Your task to perform on an android device: turn notification dots off Image 0: 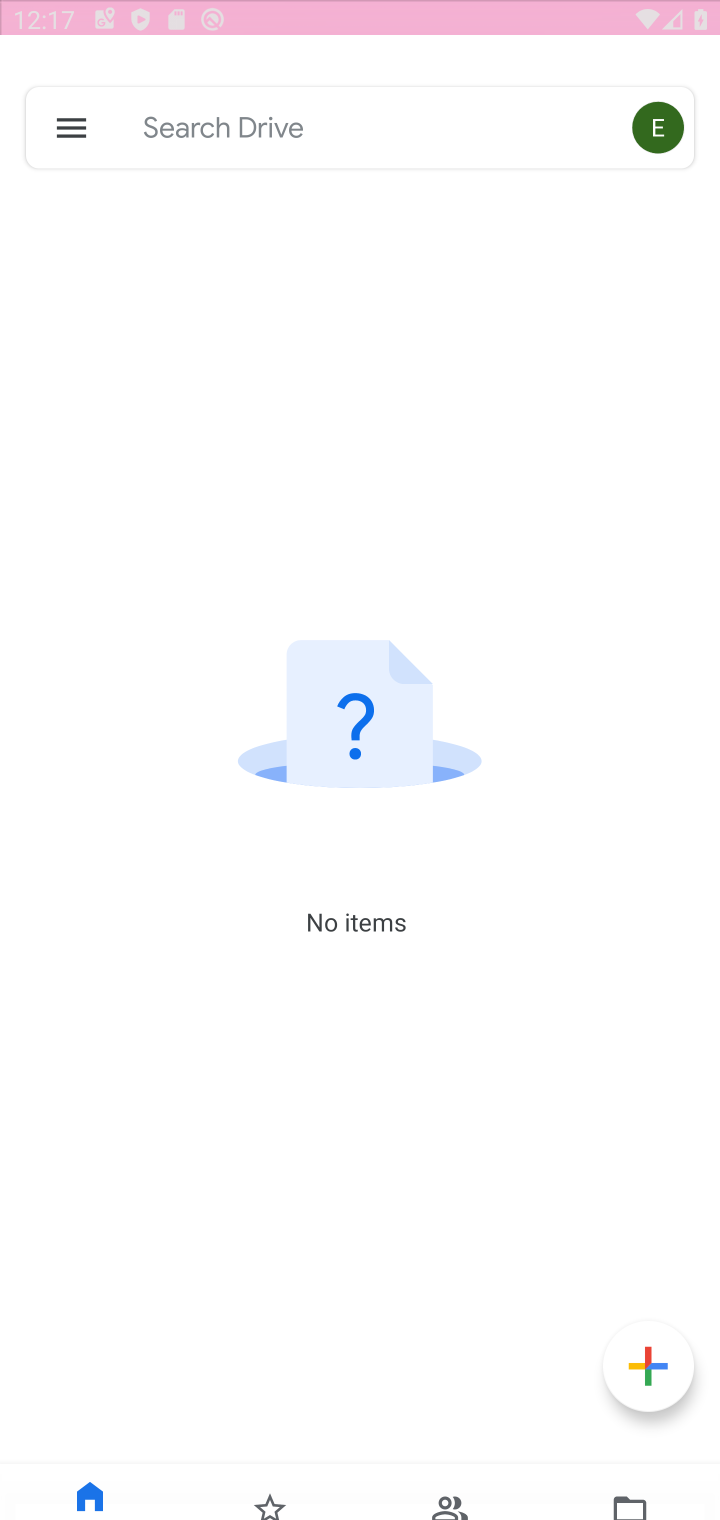
Step 0: click (112, 1039)
Your task to perform on an android device: turn notification dots off Image 1: 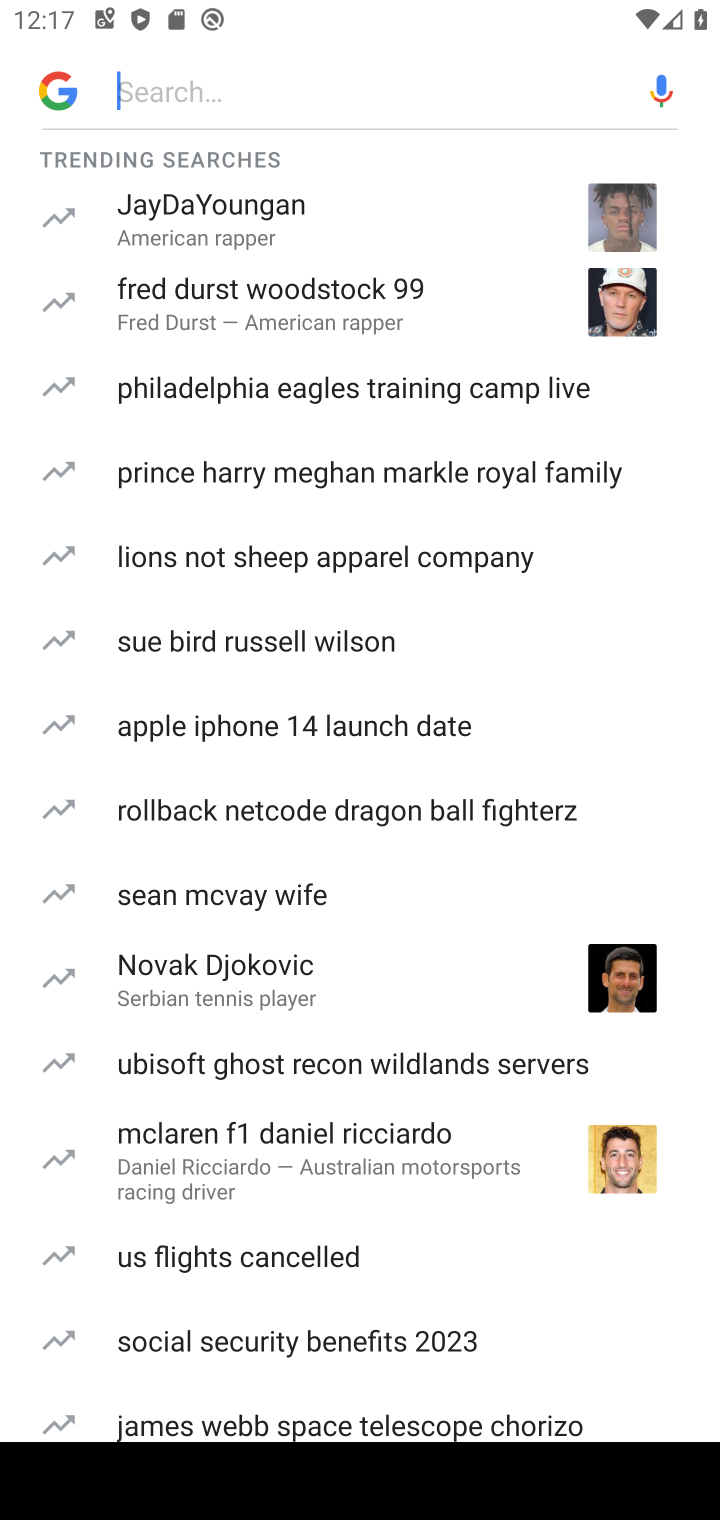
Step 1: press back button
Your task to perform on an android device: turn notification dots off Image 2: 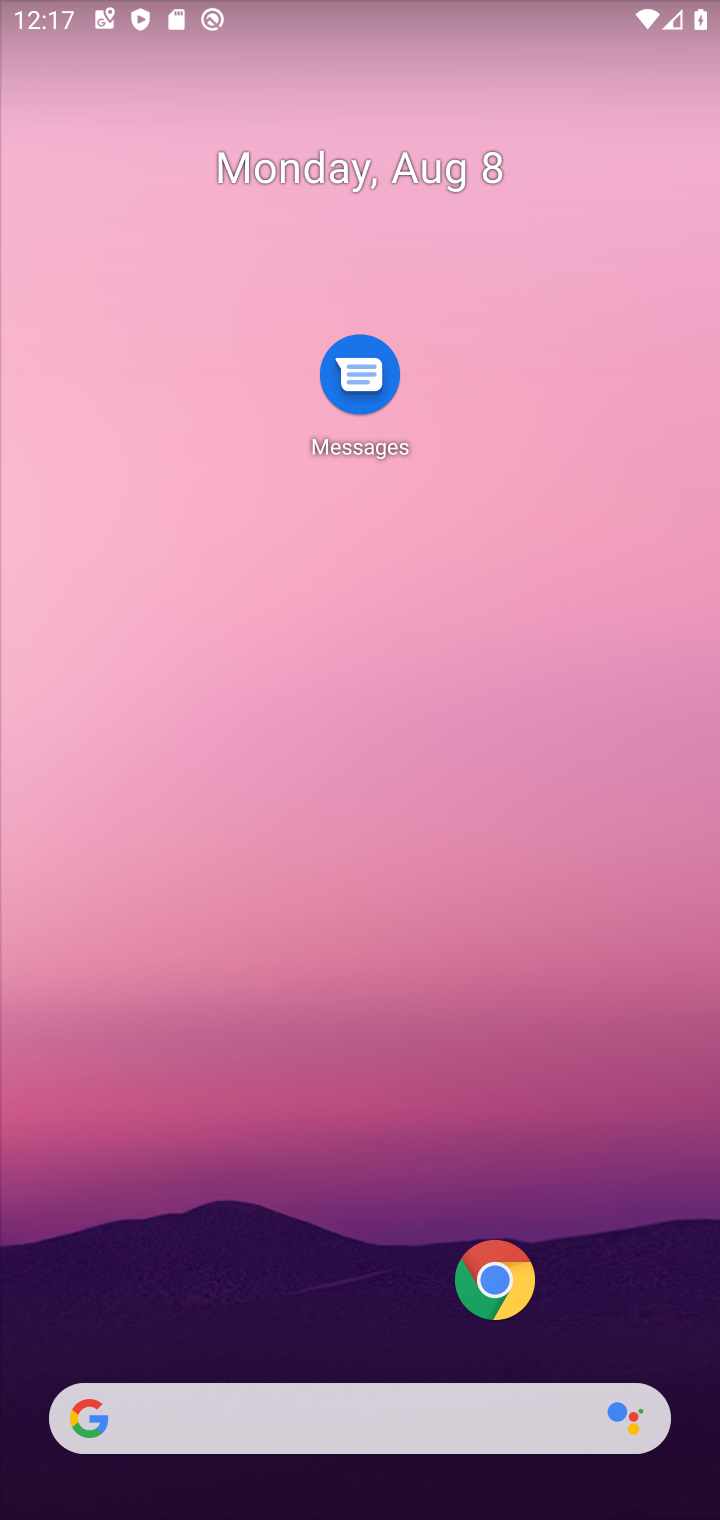
Step 2: drag from (156, 1272) to (0, 417)
Your task to perform on an android device: turn notification dots off Image 3: 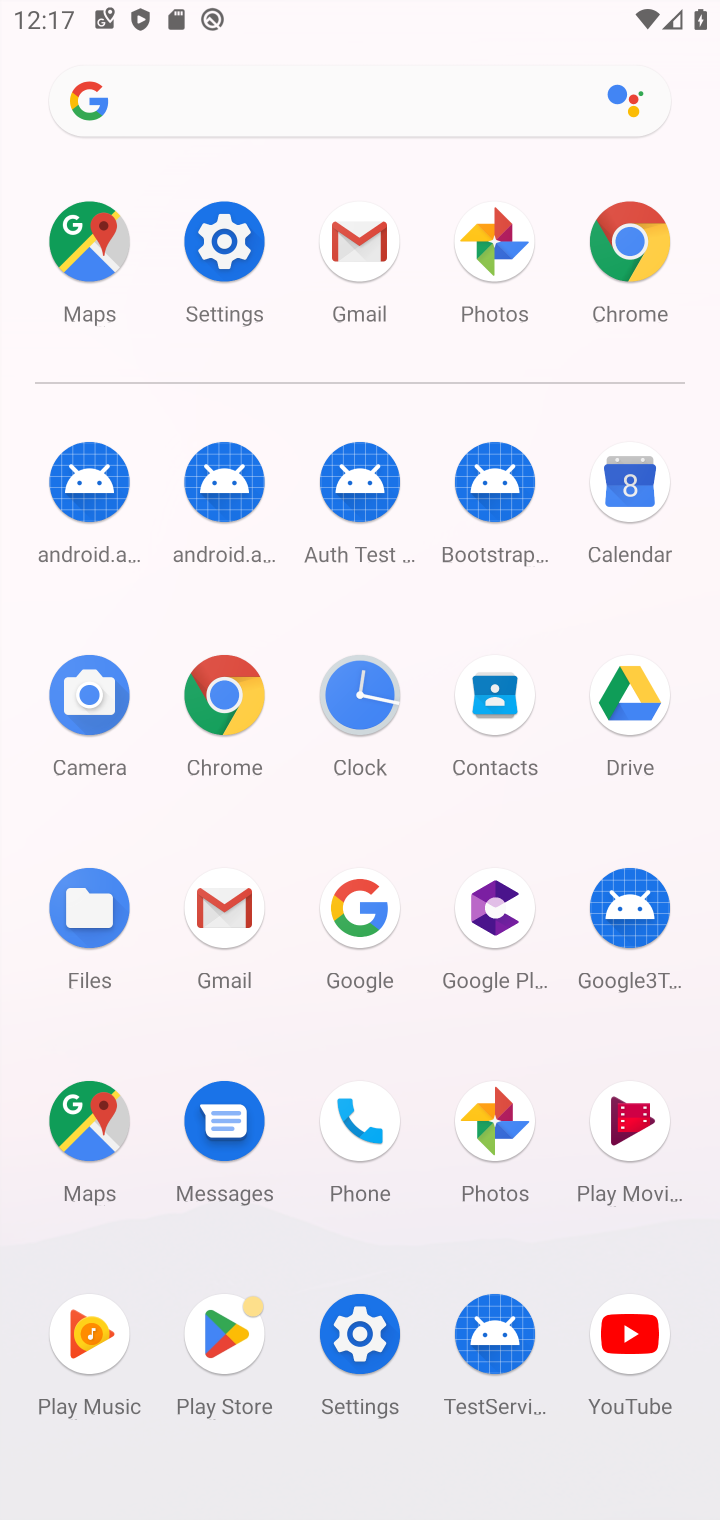
Step 3: click (242, 249)
Your task to perform on an android device: turn notification dots off Image 4: 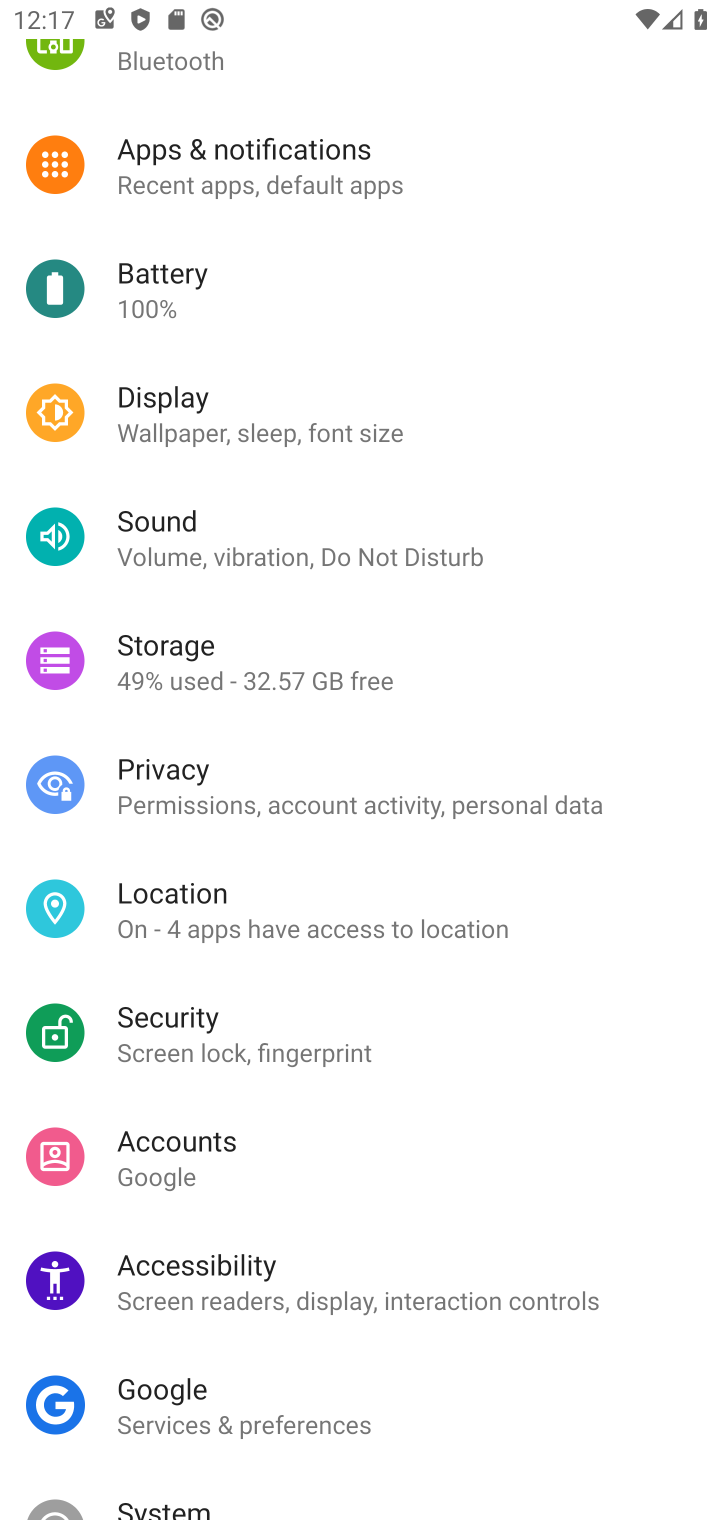
Step 4: click (395, 171)
Your task to perform on an android device: turn notification dots off Image 5: 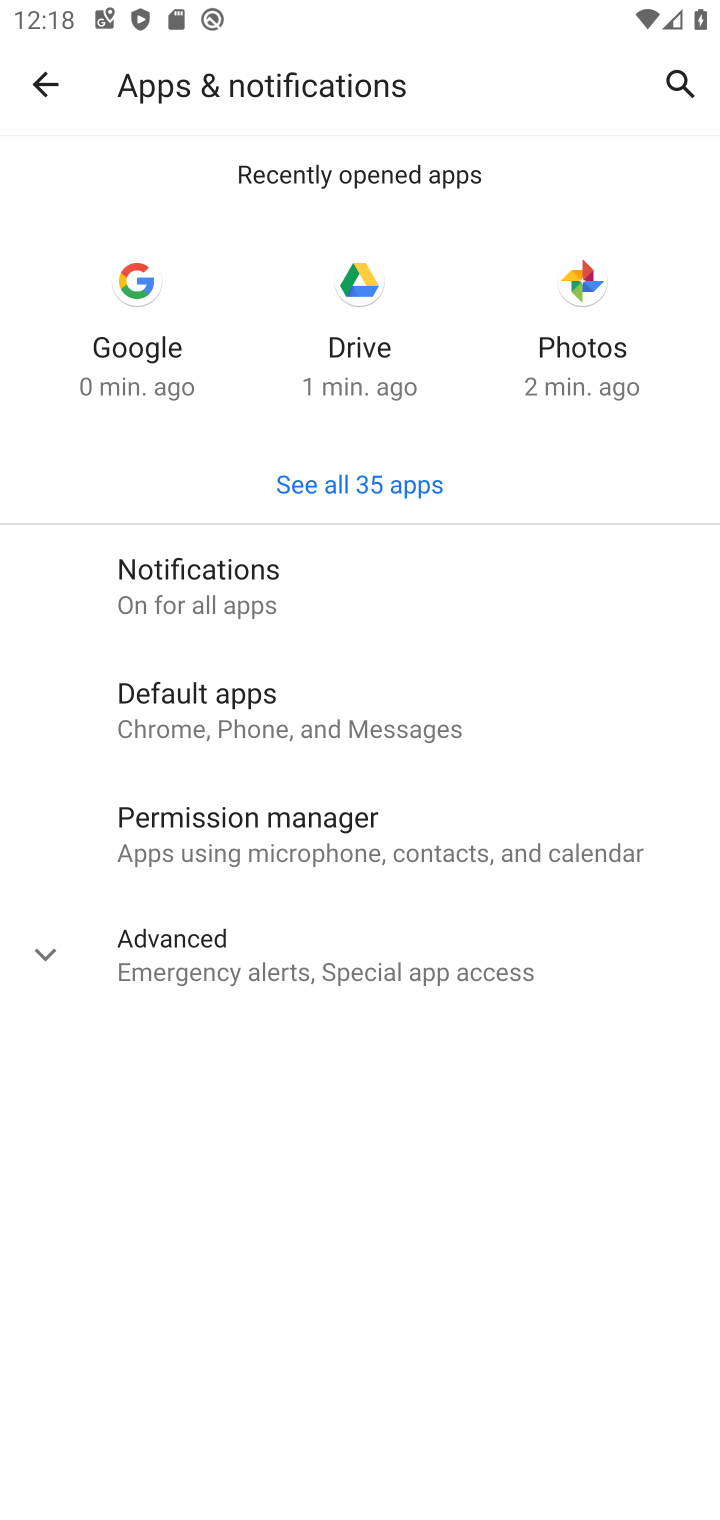
Step 5: click (243, 568)
Your task to perform on an android device: turn notification dots off Image 6: 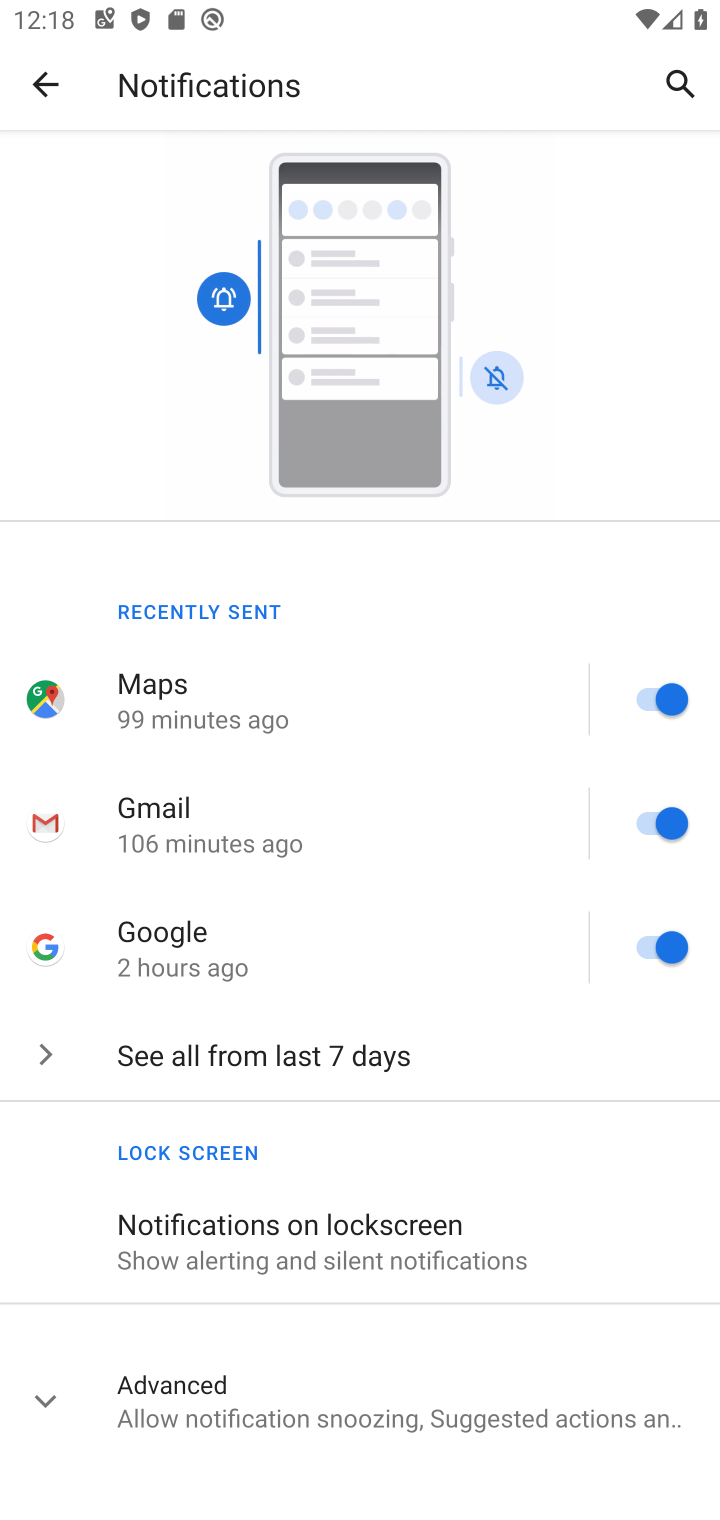
Step 6: click (302, 1430)
Your task to perform on an android device: turn notification dots off Image 7: 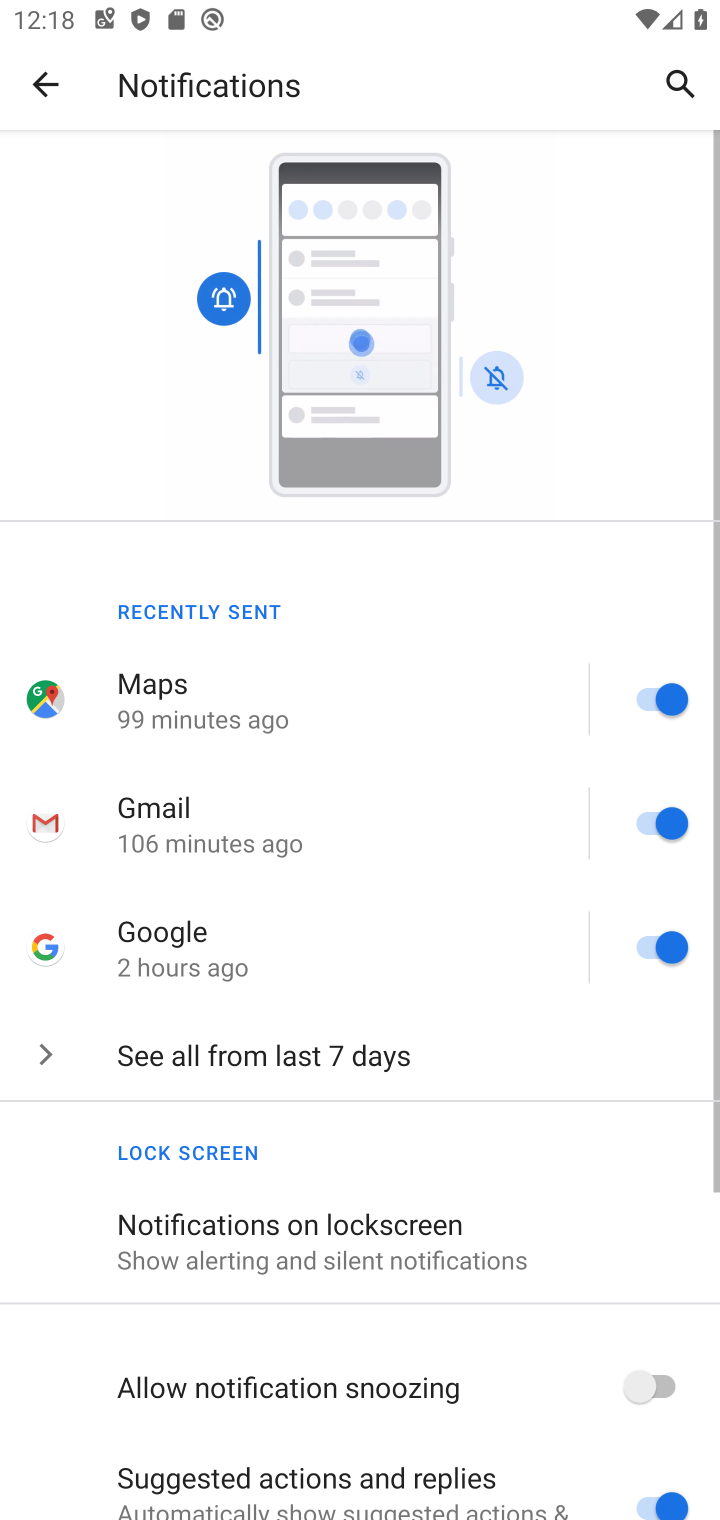
Step 7: drag from (206, 1296) to (41, 562)
Your task to perform on an android device: turn notification dots off Image 8: 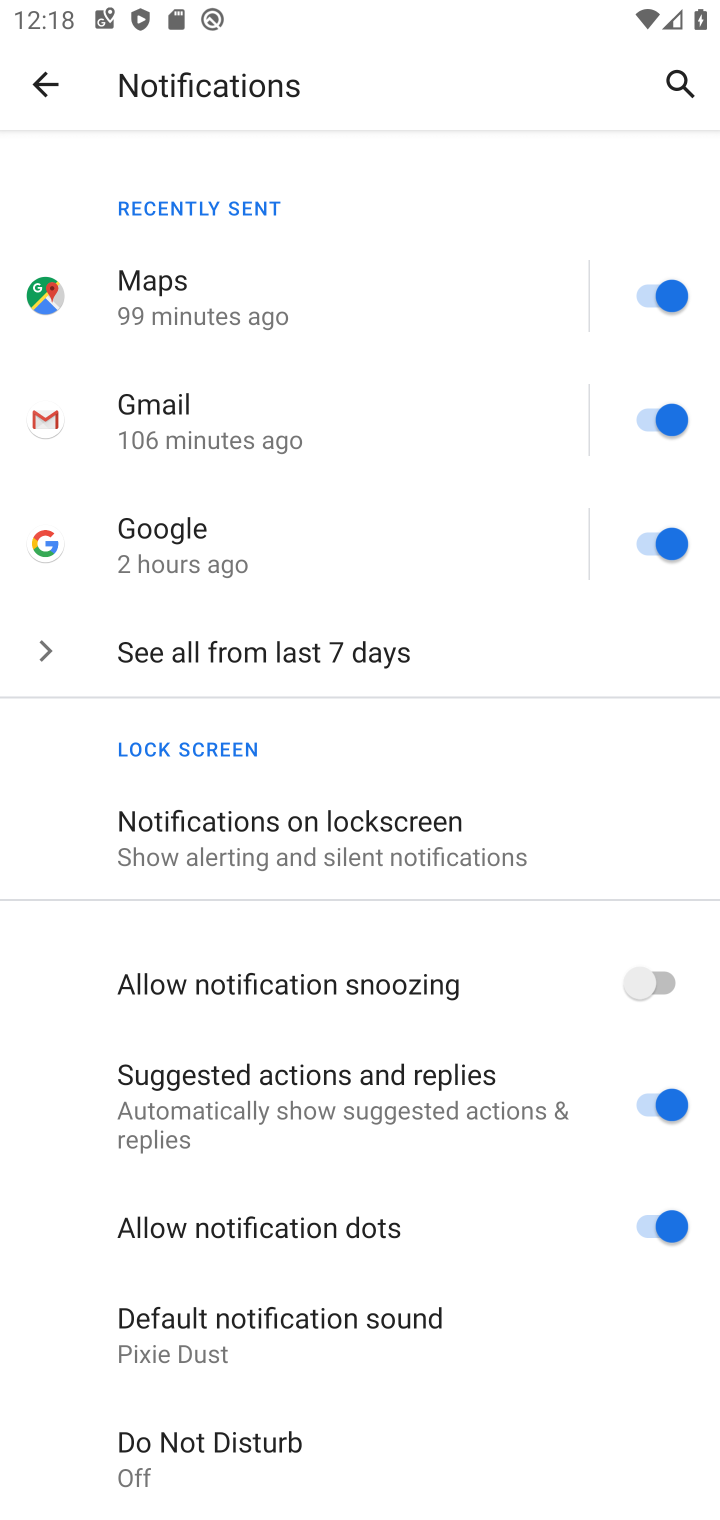
Step 8: click (651, 1236)
Your task to perform on an android device: turn notification dots off Image 9: 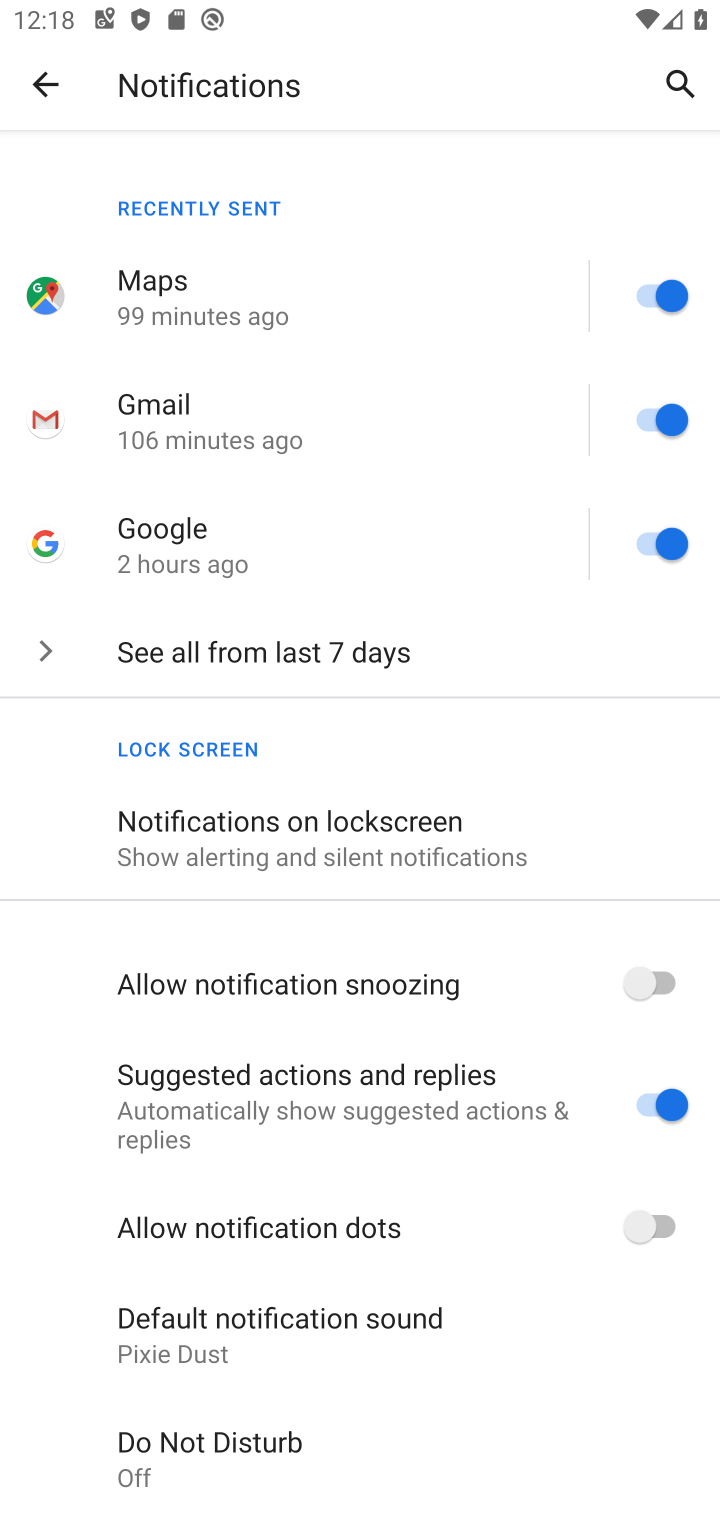
Step 9: task complete